Your task to perform on an android device: star an email in the gmail app Image 0: 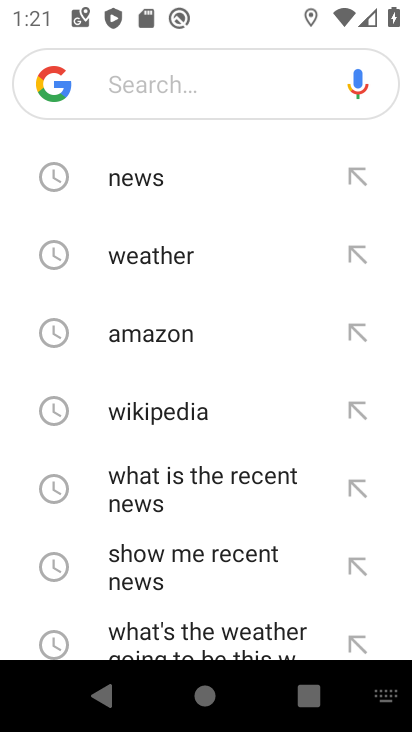
Step 0: press back button
Your task to perform on an android device: star an email in the gmail app Image 1: 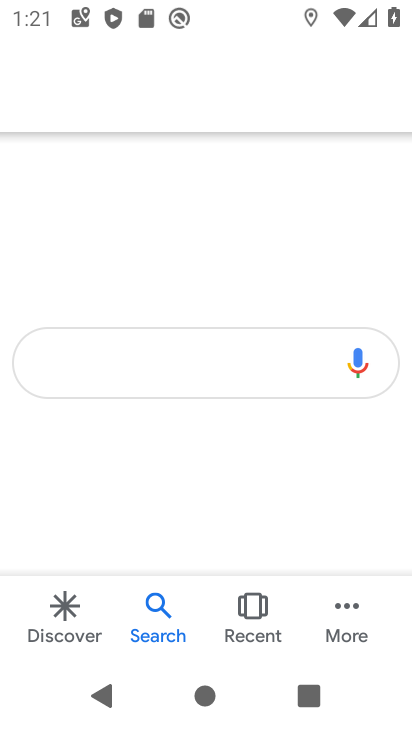
Step 1: press back button
Your task to perform on an android device: star an email in the gmail app Image 2: 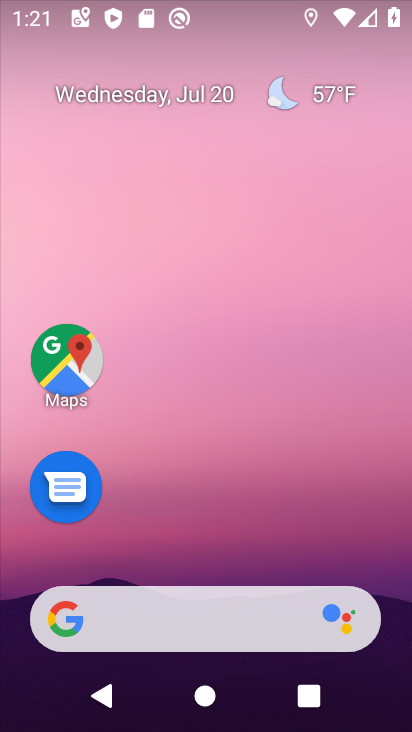
Step 2: drag from (200, 487) to (207, 1)
Your task to perform on an android device: star an email in the gmail app Image 3: 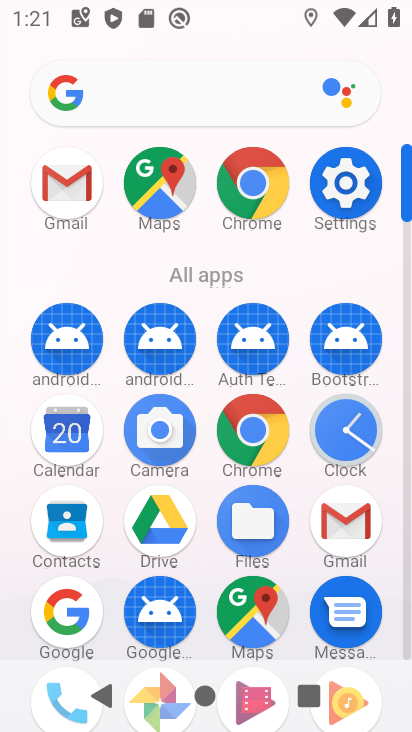
Step 3: click (56, 195)
Your task to perform on an android device: star an email in the gmail app Image 4: 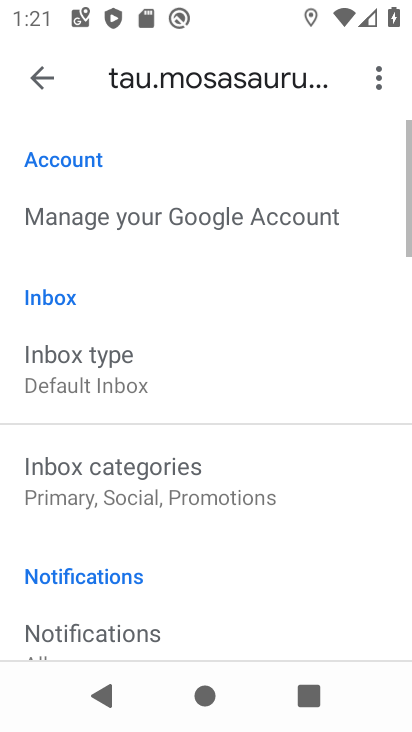
Step 4: click (44, 79)
Your task to perform on an android device: star an email in the gmail app Image 5: 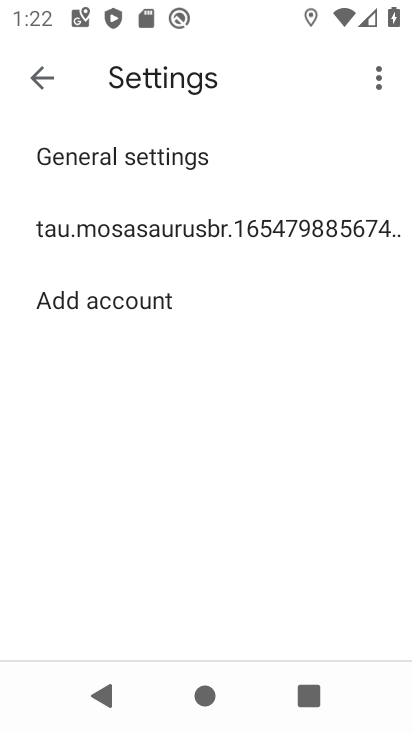
Step 5: click (40, 72)
Your task to perform on an android device: star an email in the gmail app Image 6: 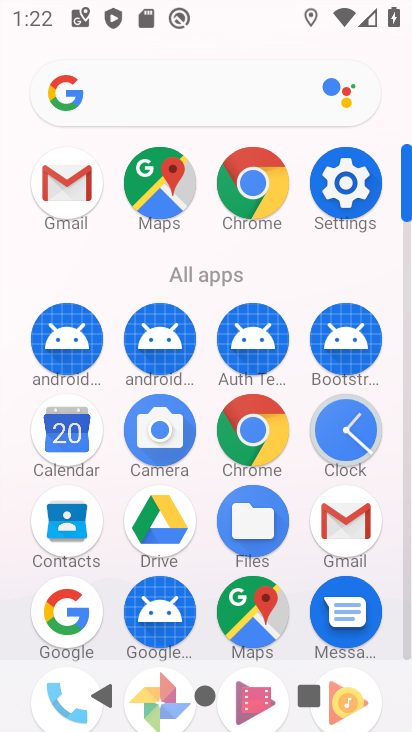
Step 6: click (75, 165)
Your task to perform on an android device: star an email in the gmail app Image 7: 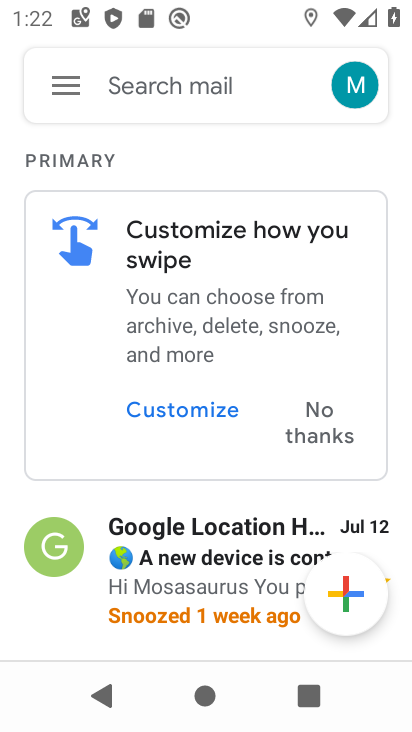
Step 7: click (38, 91)
Your task to perform on an android device: star an email in the gmail app Image 8: 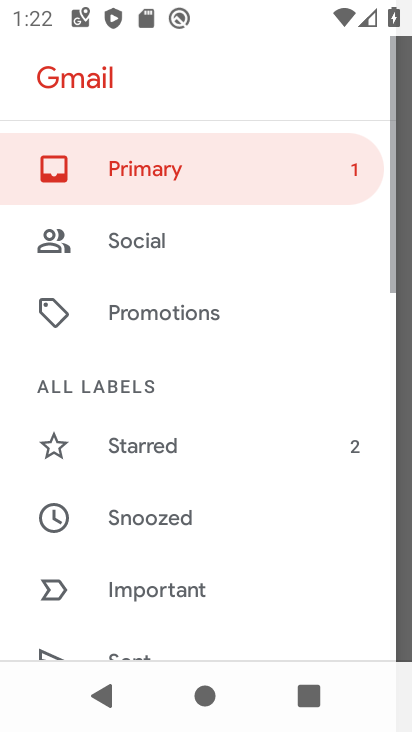
Step 8: drag from (195, 604) to (315, 233)
Your task to perform on an android device: star an email in the gmail app Image 9: 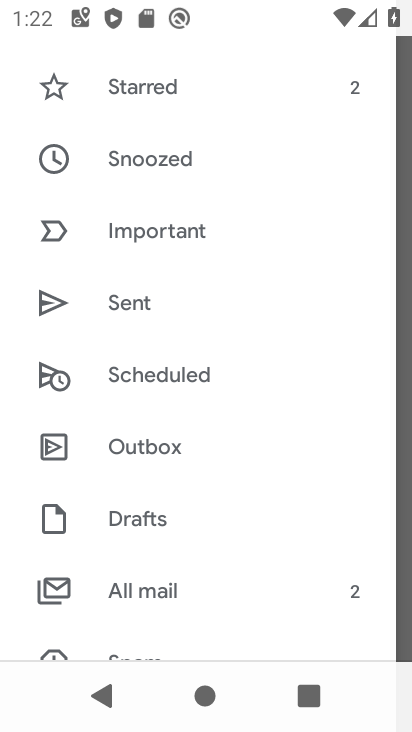
Step 9: click (142, 600)
Your task to perform on an android device: star an email in the gmail app Image 10: 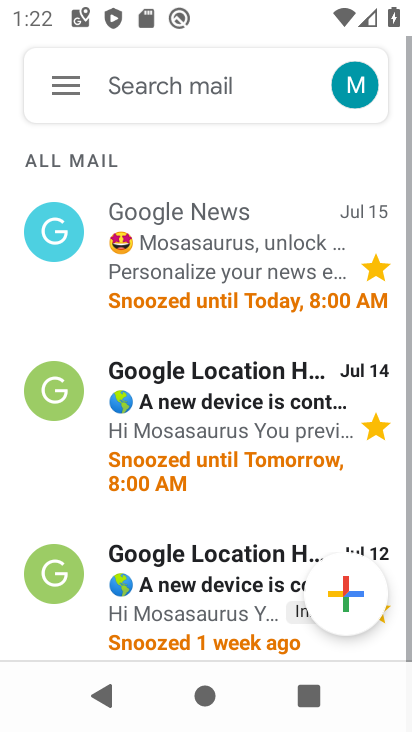
Step 10: task complete